Your task to perform on an android device: toggle location history Image 0: 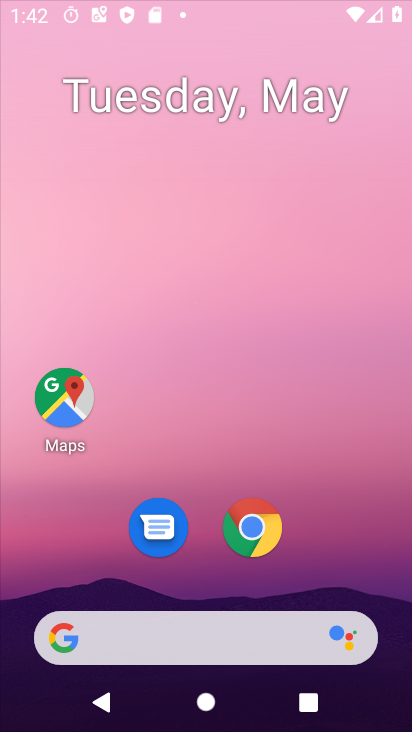
Step 0: press home button
Your task to perform on an android device: toggle location history Image 1: 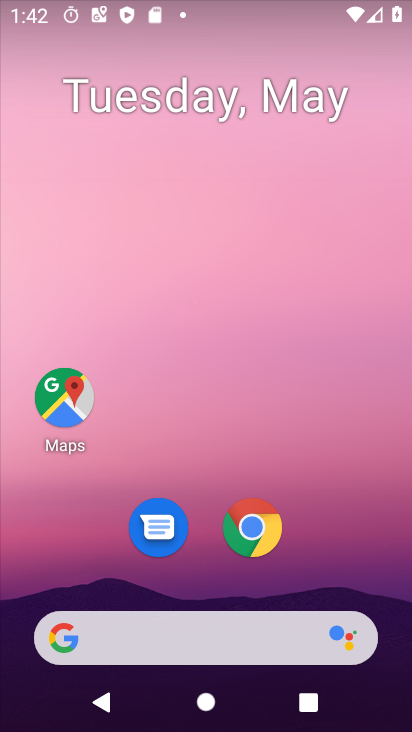
Step 1: drag from (229, 619) to (174, 365)
Your task to perform on an android device: toggle location history Image 2: 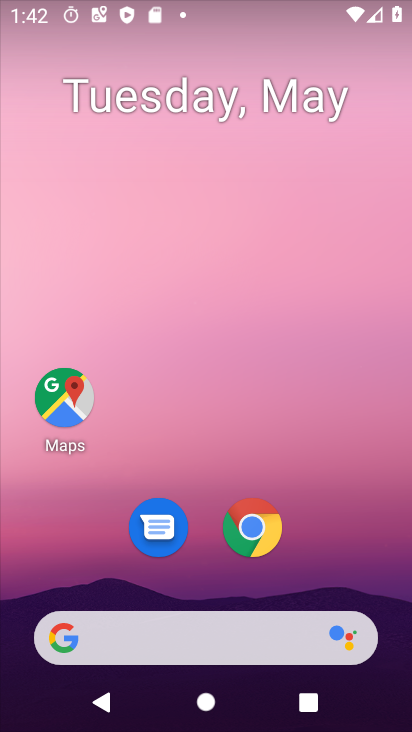
Step 2: drag from (270, 662) to (219, 268)
Your task to perform on an android device: toggle location history Image 3: 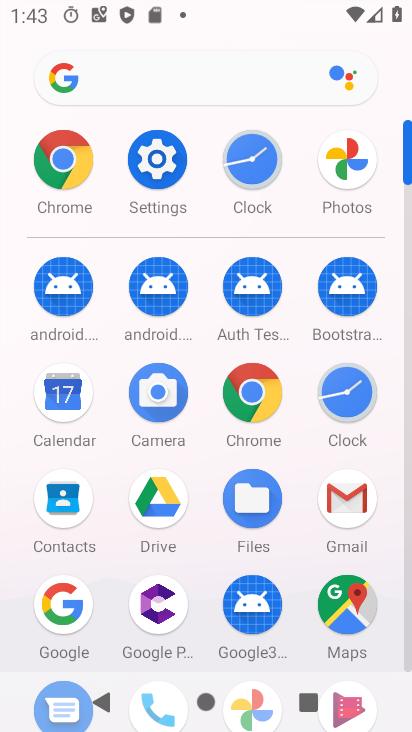
Step 3: click (158, 147)
Your task to perform on an android device: toggle location history Image 4: 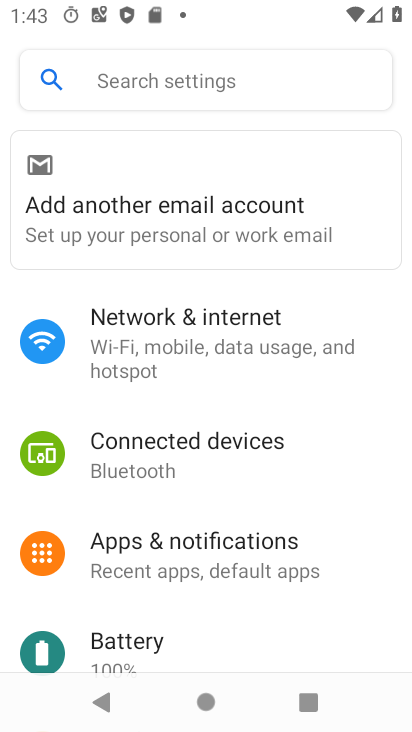
Step 4: click (129, 92)
Your task to perform on an android device: toggle location history Image 5: 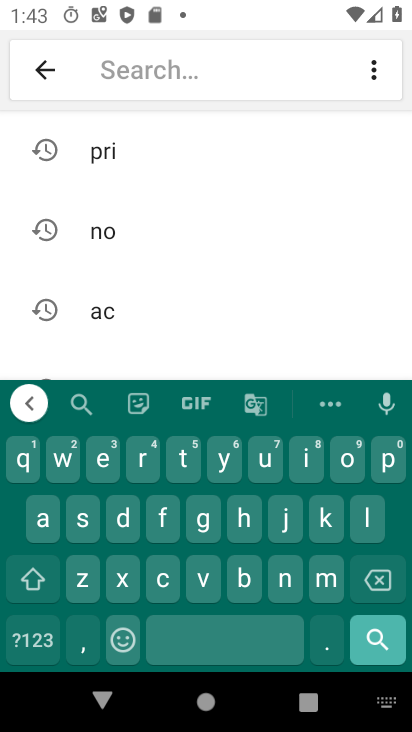
Step 5: click (373, 527)
Your task to perform on an android device: toggle location history Image 6: 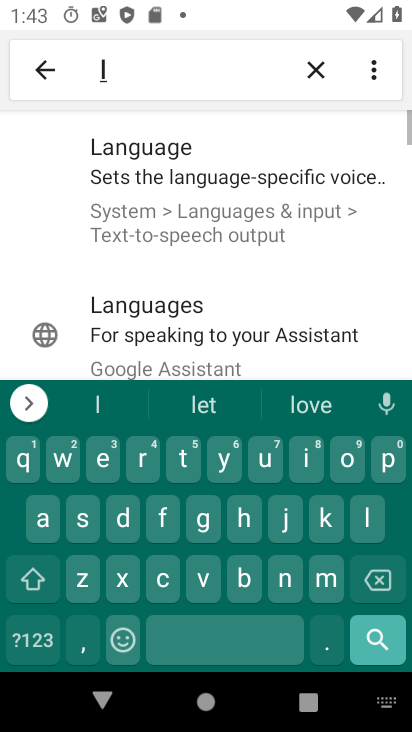
Step 6: click (351, 466)
Your task to perform on an android device: toggle location history Image 7: 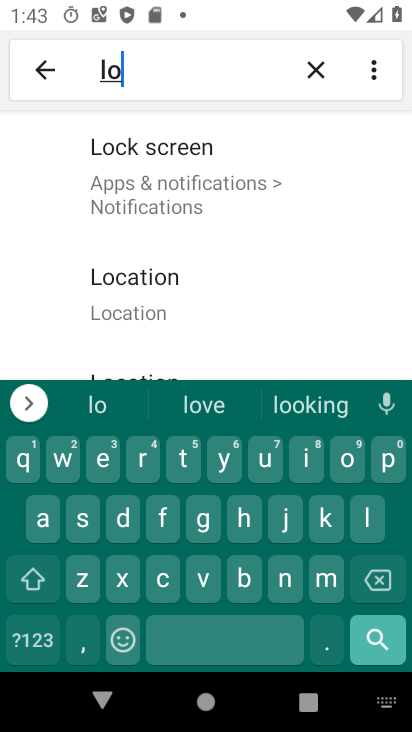
Step 7: click (118, 294)
Your task to perform on an android device: toggle location history Image 8: 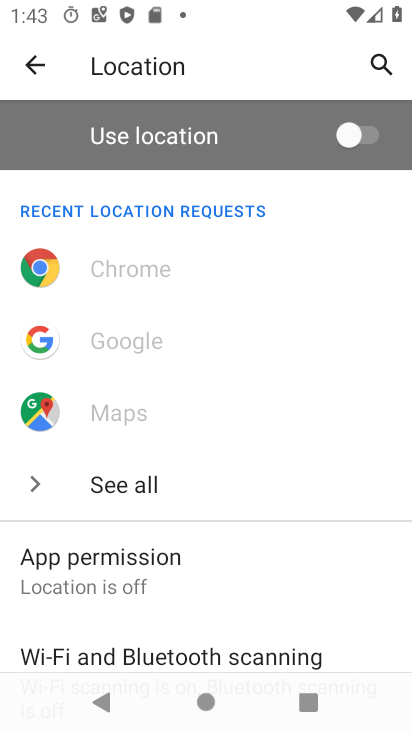
Step 8: drag from (243, 493) to (235, 371)
Your task to perform on an android device: toggle location history Image 9: 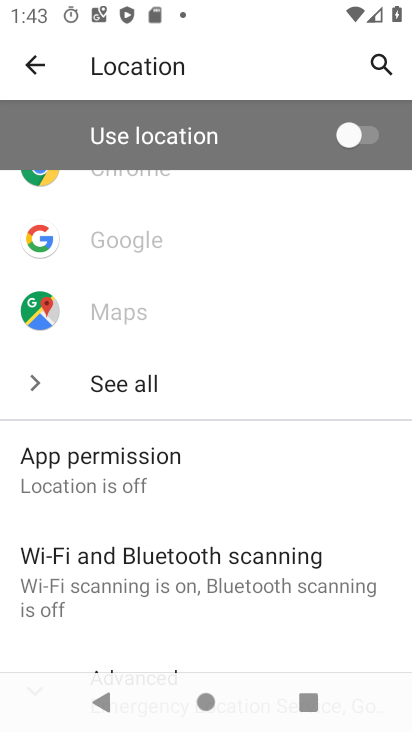
Step 9: drag from (186, 502) to (169, 312)
Your task to perform on an android device: toggle location history Image 10: 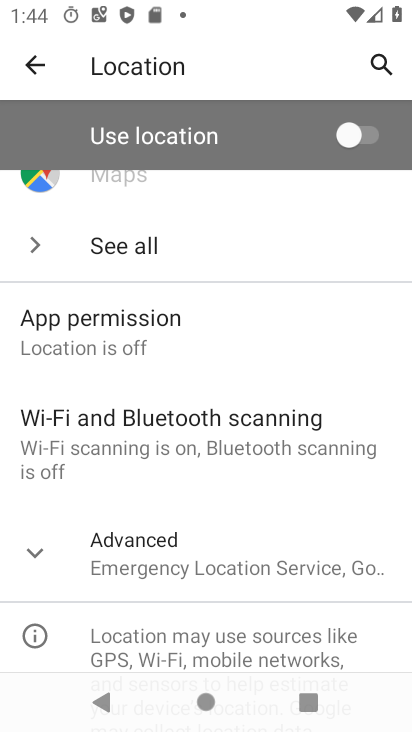
Step 10: click (165, 546)
Your task to perform on an android device: toggle location history Image 11: 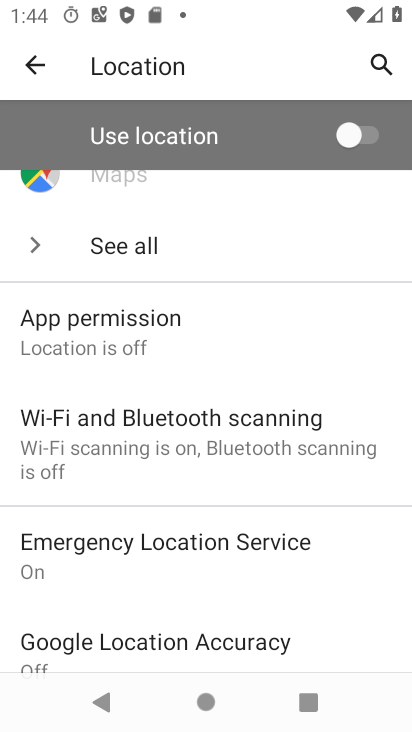
Step 11: drag from (213, 639) to (247, 471)
Your task to perform on an android device: toggle location history Image 12: 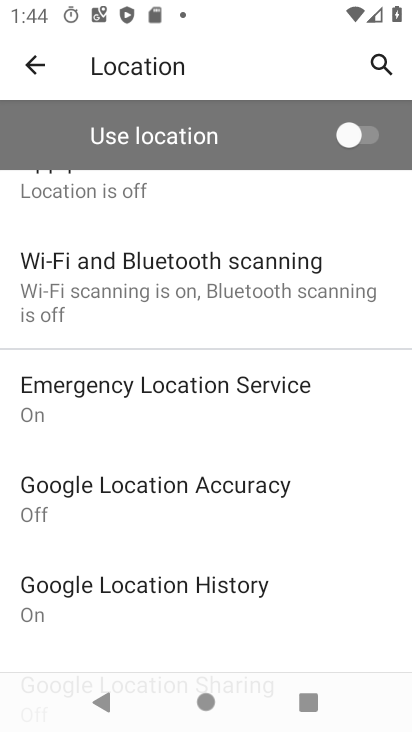
Step 12: click (212, 607)
Your task to perform on an android device: toggle location history Image 13: 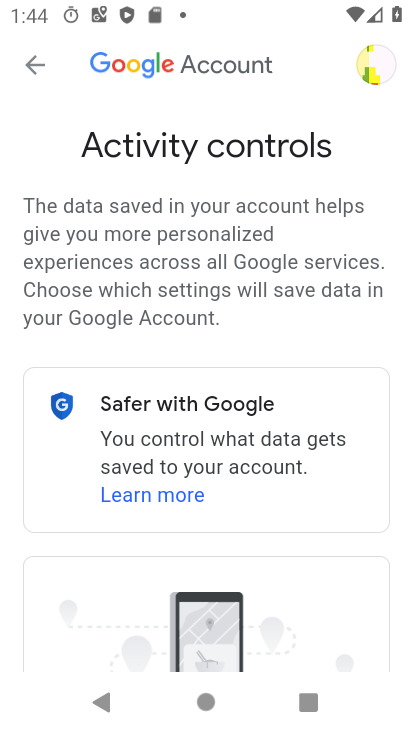
Step 13: task complete